Your task to perform on an android device: move a message to another label in the gmail app Image 0: 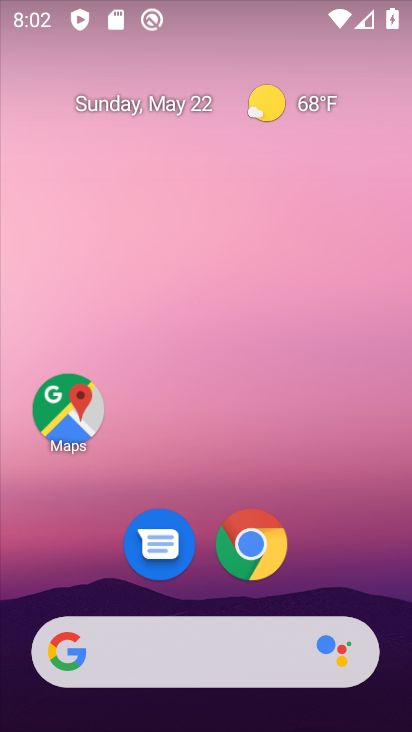
Step 0: click (391, 450)
Your task to perform on an android device: move a message to another label in the gmail app Image 1: 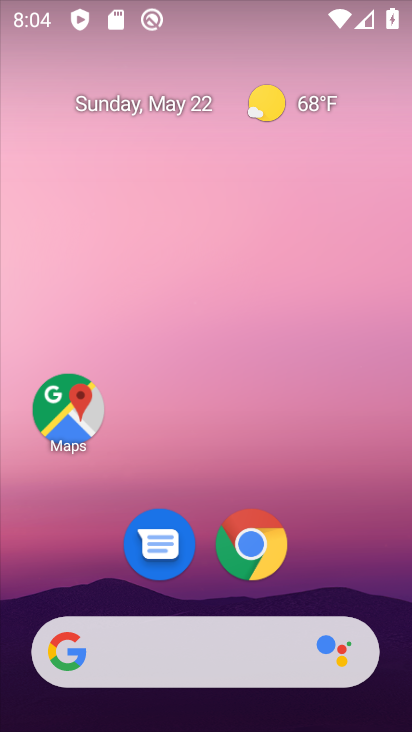
Step 1: drag from (396, 674) to (411, 219)
Your task to perform on an android device: move a message to another label in the gmail app Image 2: 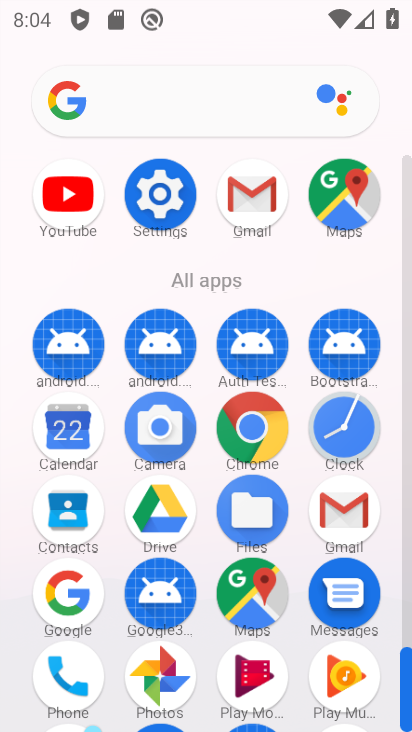
Step 2: click (234, 200)
Your task to perform on an android device: move a message to another label in the gmail app Image 3: 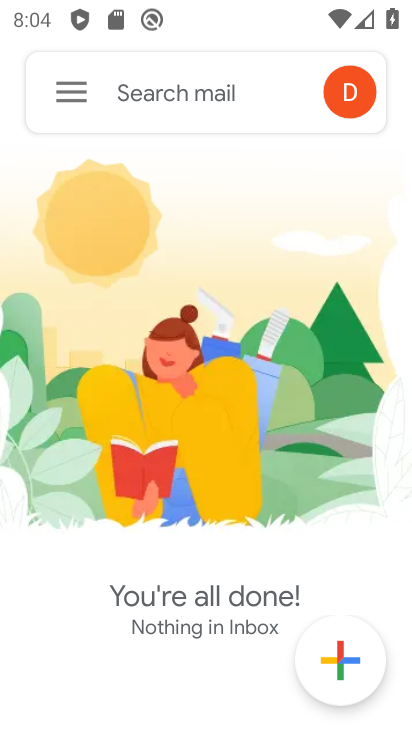
Step 3: click (57, 101)
Your task to perform on an android device: move a message to another label in the gmail app Image 4: 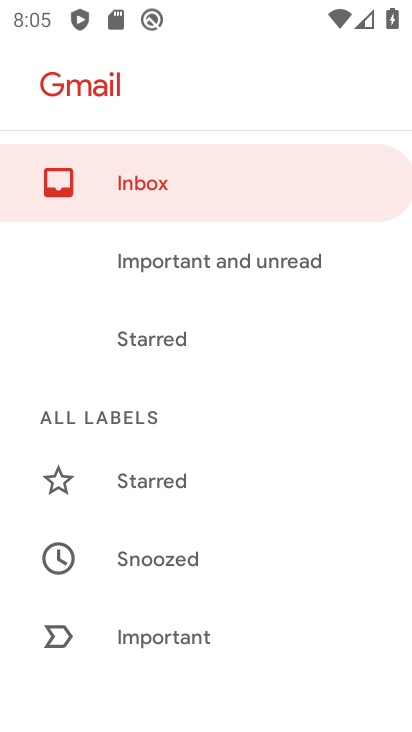
Step 4: drag from (300, 673) to (305, 326)
Your task to perform on an android device: move a message to another label in the gmail app Image 5: 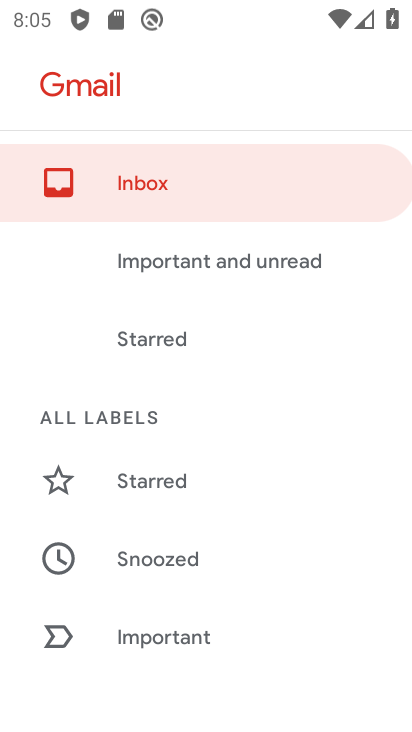
Step 5: click (108, 176)
Your task to perform on an android device: move a message to another label in the gmail app Image 6: 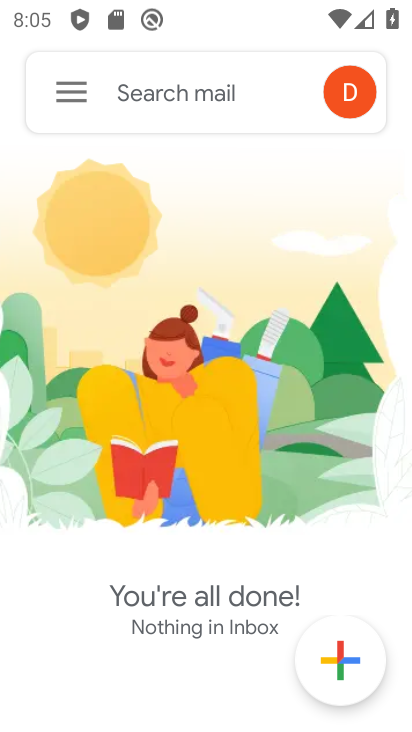
Step 6: task complete